Your task to perform on an android device: star an email in the gmail app Image 0: 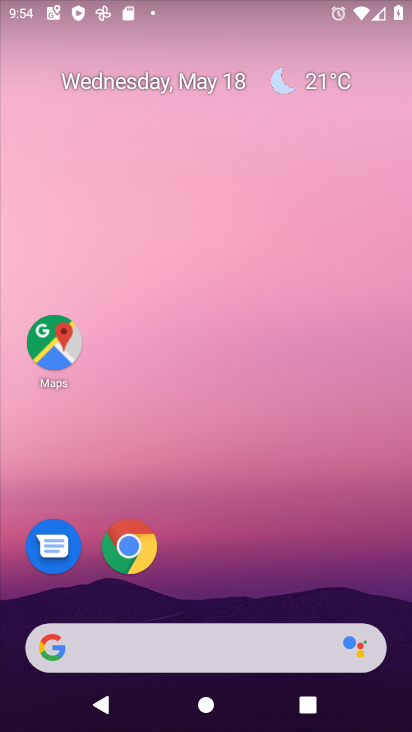
Step 0: drag from (348, 595) to (295, 239)
Your task to perform on an android device: star an email in the gmail app Image 1: 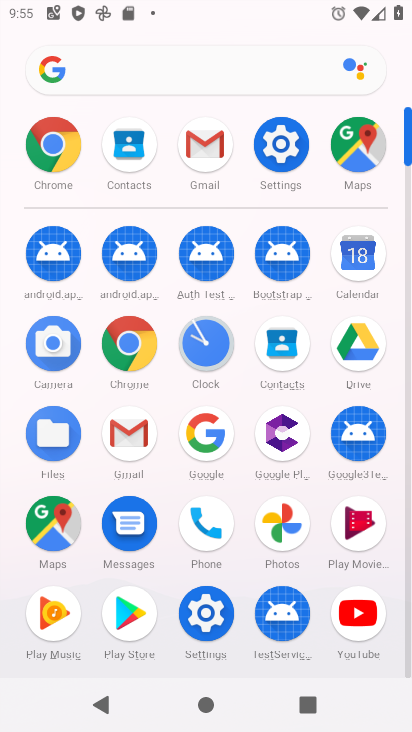
Step 1: click (130, 448)
Your task to perform on an android device: star an email in the gmail app Image 2: 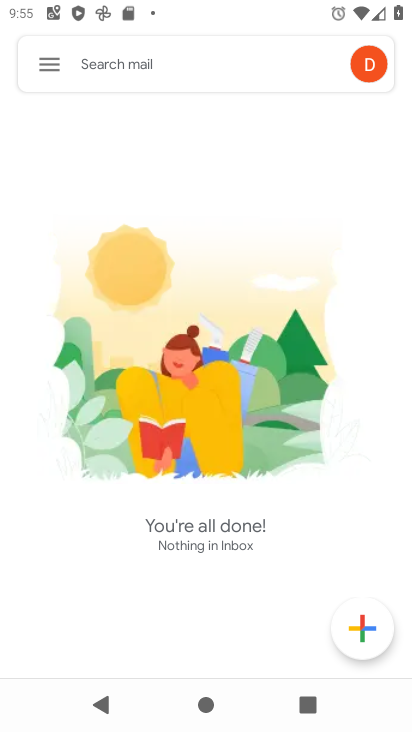
Step 2: click (46, 52)
Your task to perform on an android device: star an email in the gmail app Image 3: 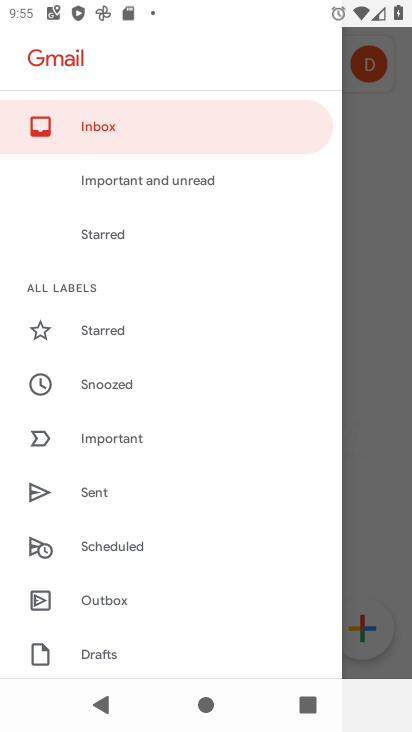
Step 3: click (379, 226)
Your task to perform on an android device: star an email in the gmail app Image 4: 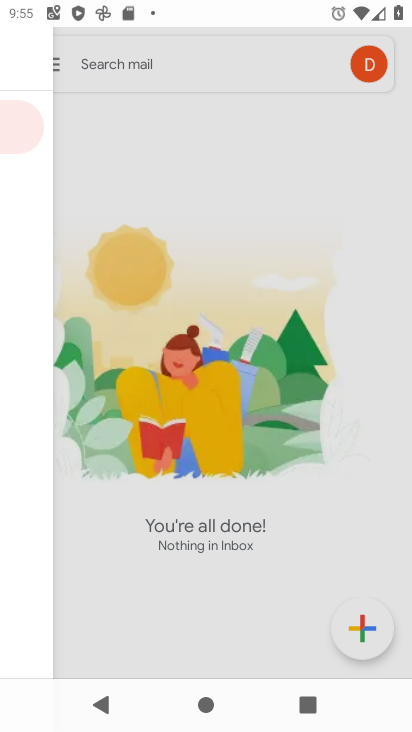
Step 4: click (379, 226)
Your task to perform on an android device: star an email in the gmail app Image 5: 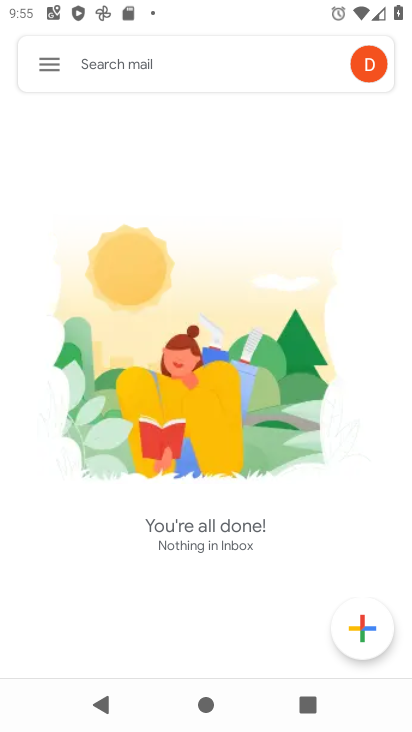
Step 5: task complete